Your task to perform on an android device: turn off javascript in the chrome app Image 0: 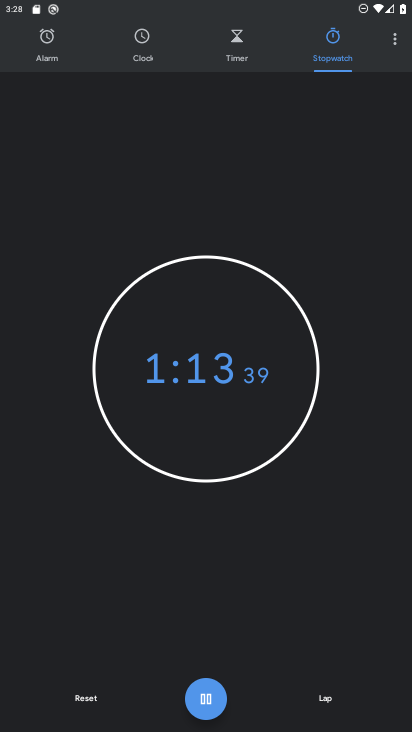
Step 0: press home button
Your task to perform on an android device: turn off javascript in the chrome app Image 1: 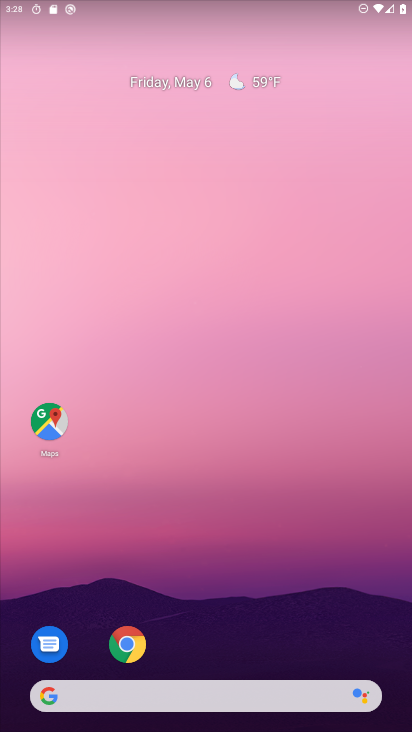
Step 1: click (133, 657)
Your task to perform on an android device: turn off javascript in the chrome app Image 2: 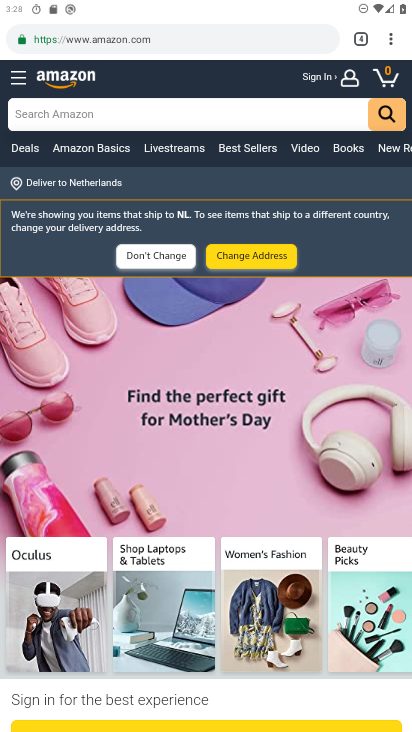
Step 2: drag from (391, 35) to (289, 467)
Your task to perform on an android device: turn off javascript in the chrome app Image 3: 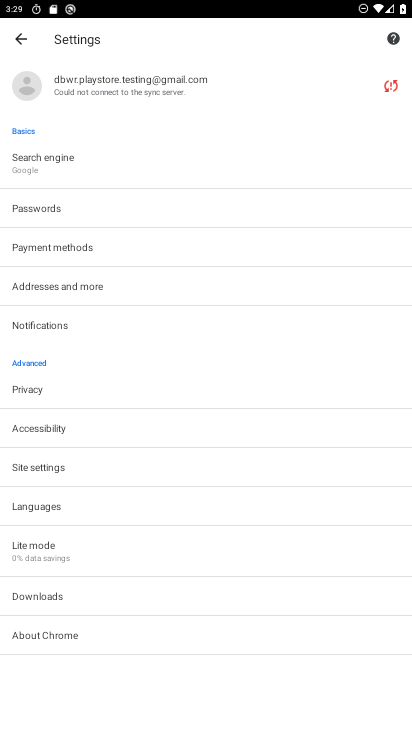
Step 3: click (50, 466)
Your task to perform on an android device: turn off javascript in the chrome app Image 4: 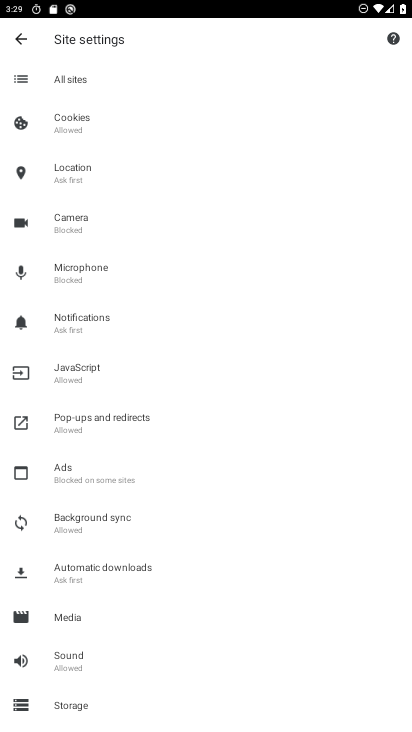
Step 4: click (90, 377)
Your task to perform on an android device: turn off javascript in the chrome app Image 5: 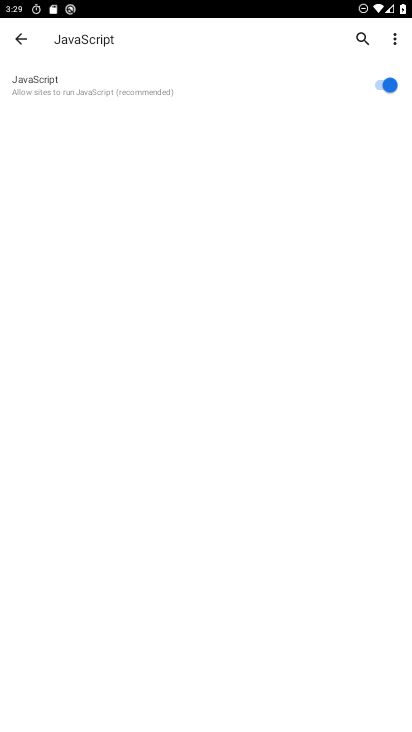
Step 5: click (379, 82)
Your task to perform on an android device: turn off javascript in the chrome app Image 6: 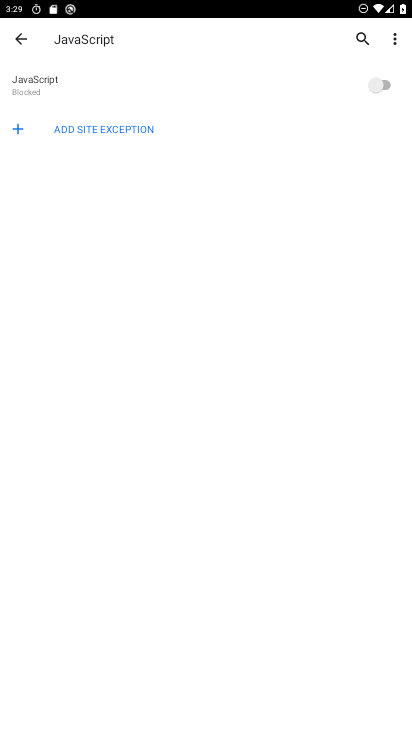
Step 6: task complete